Your task to perform on an android device: Open Amazon Image 0: 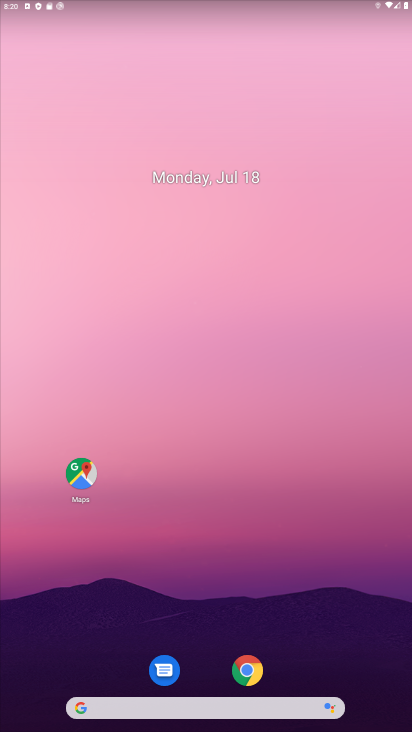
Step 0: click (250, 669)
Your task to perform on an android device: Open Amazon Image 1: 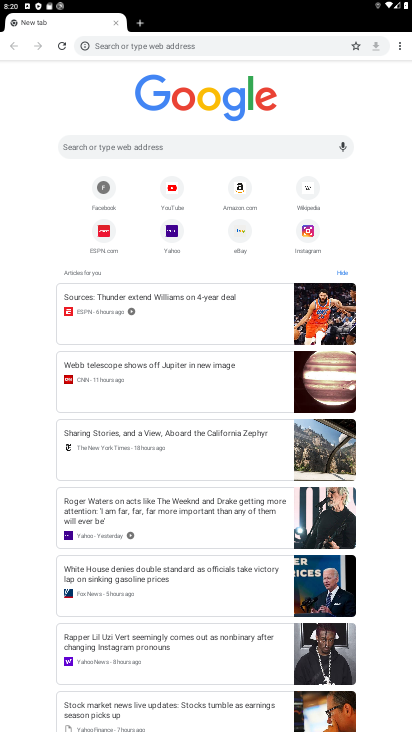
Step 1: click (240, 188)
Your task to perform on an android device: Open Amazon Image 2: 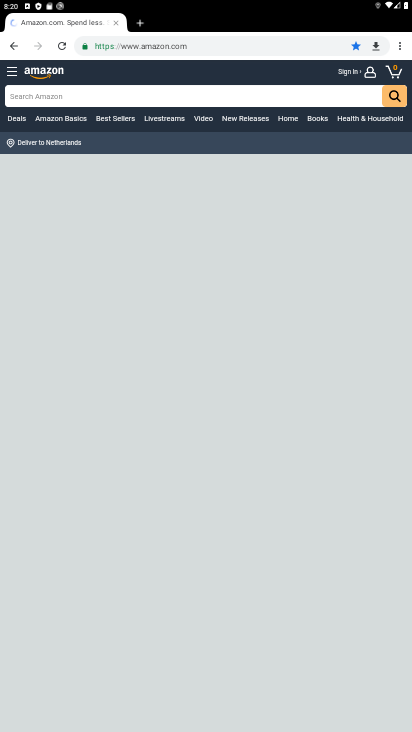
Step 2: task complete